Your task to perform on an android device: Search for the best rated TV on Target Image 0: 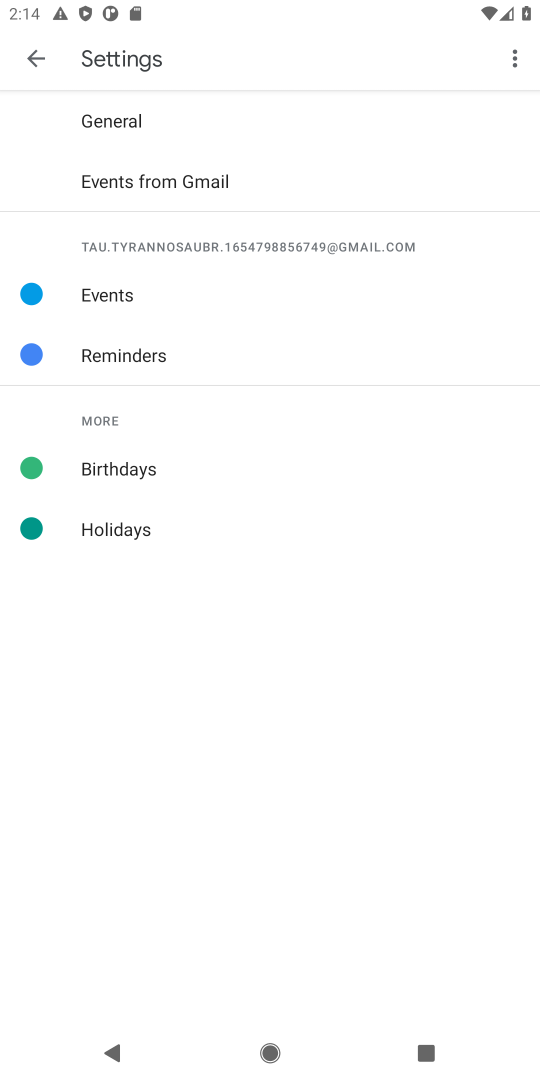
Step 0: press home button
Your task to perform on an android device: Search for the best rated TV on Target Image 1: 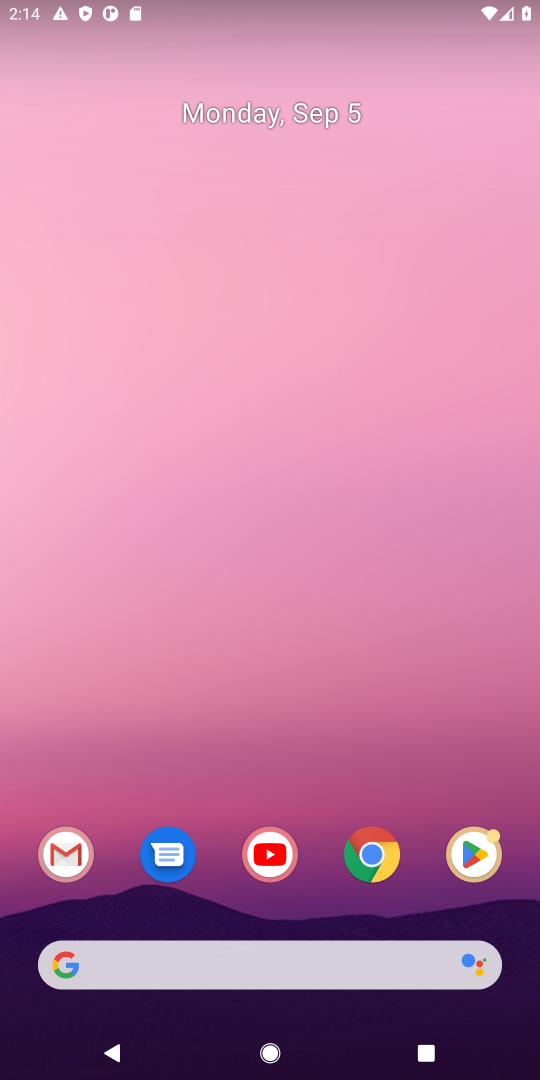
Step 1: click (324, 970)
Your task to perform on an android device: Search for the best rated TV on Target Image 2: 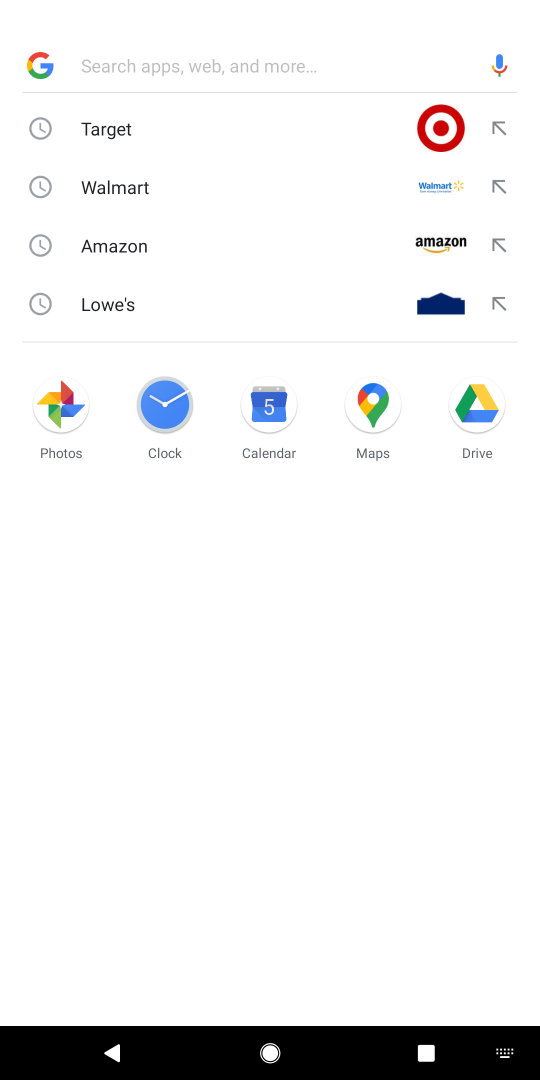
Step 2: type "target"
Your task to perform on an android device: Search for the best rated TV on Target Image 3: 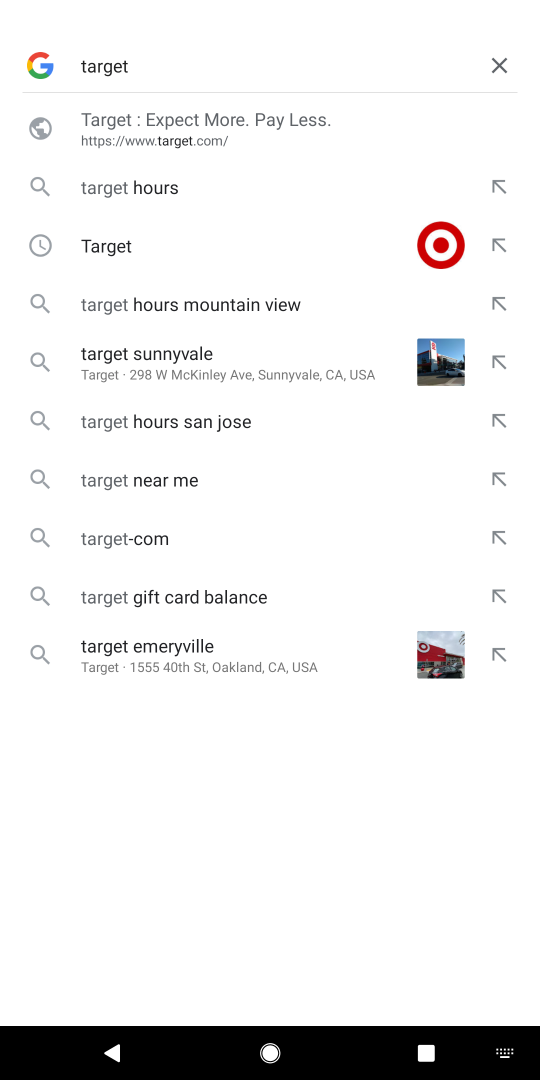
Step 3: press enter
Your task to perform on an android device: Search for the best rated TV on Target Image 4: 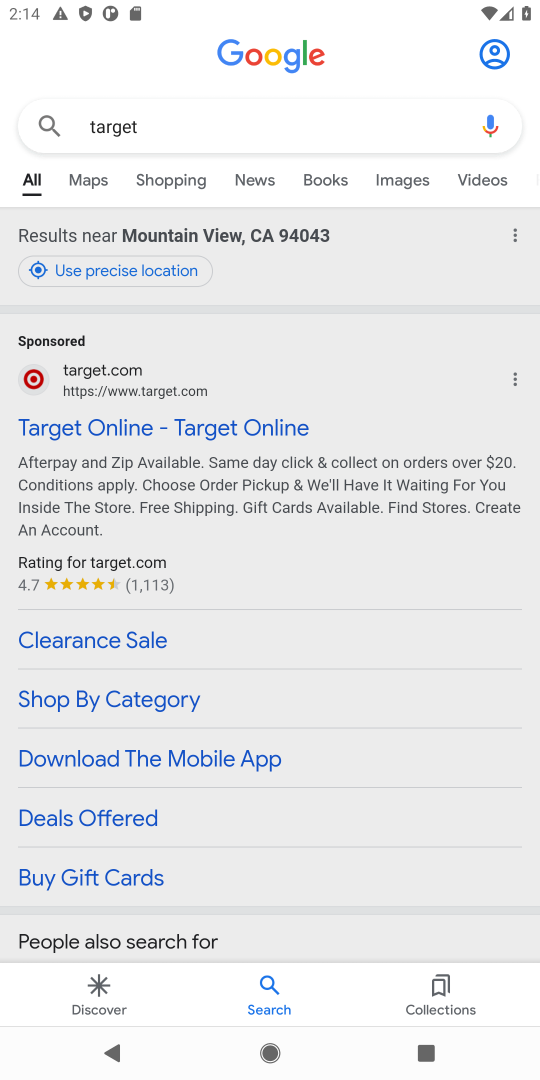
Step 4: click (94, 423)
Your task to perform on an android device: Search for the best rated TV on Target Image 5: 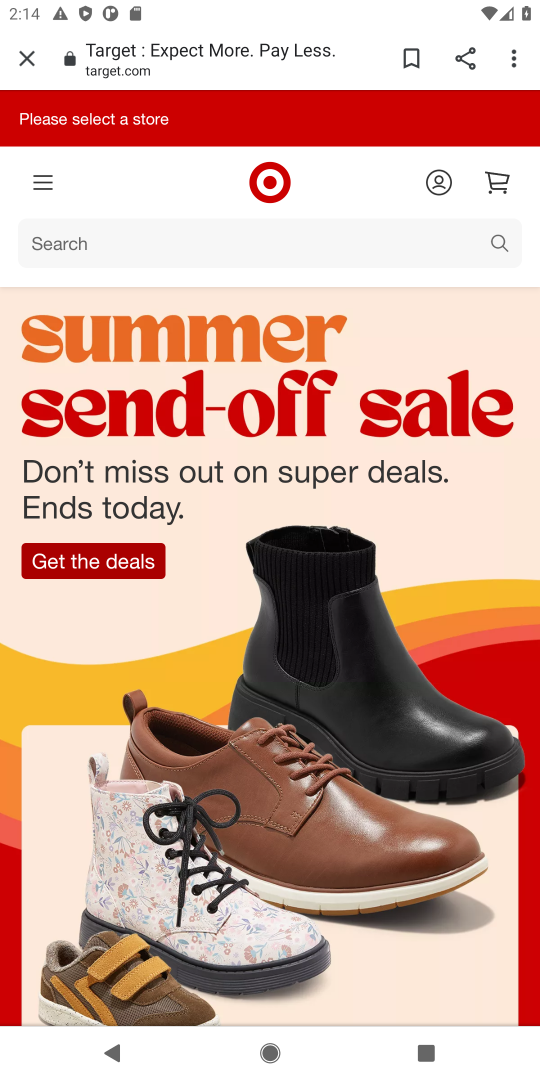
Step 5: click (48, 238)
Your task to perform on an android device: Search for the best rated TV on Target Image 6: 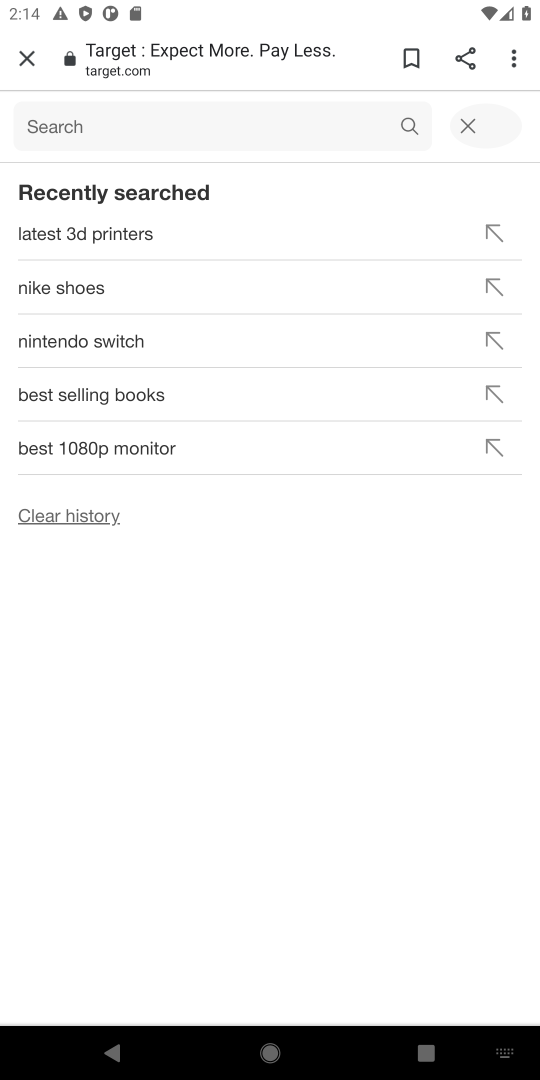
Step 6: type "best rated tv"
Your task to perform on an android device: Search for the best rated TV on Target Image 7: 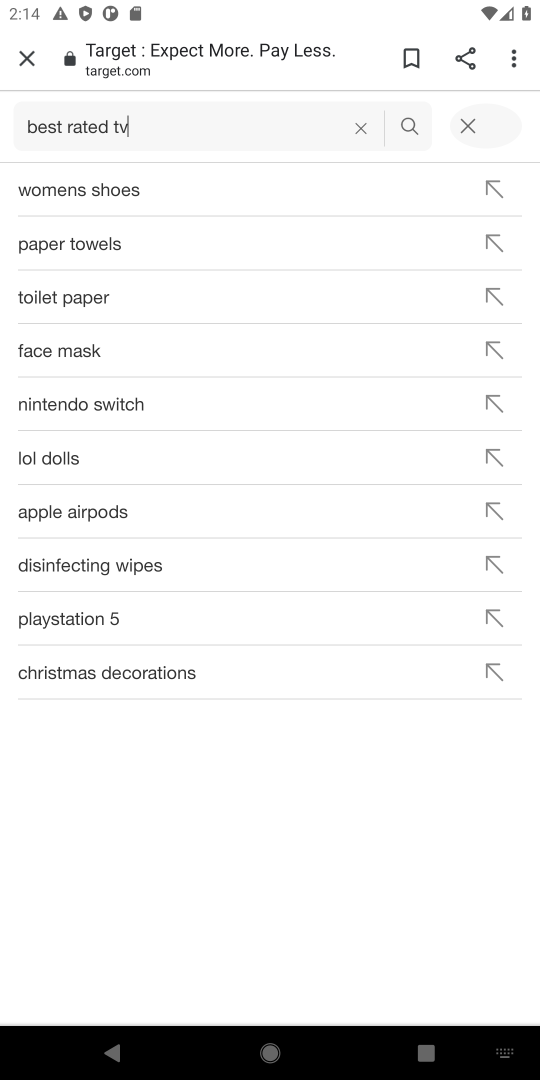
Step 7: press enter
Your task to perform on an android device: Search for the best rated TV on Target Image 8: 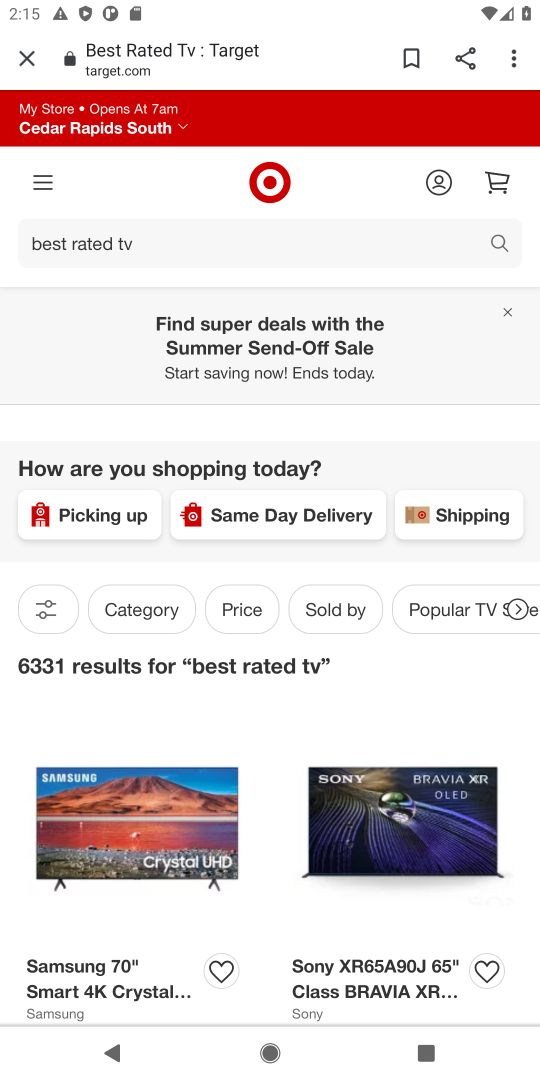
Step 8: task complete